Your task to perform on an android device: change timer sound Image 0: 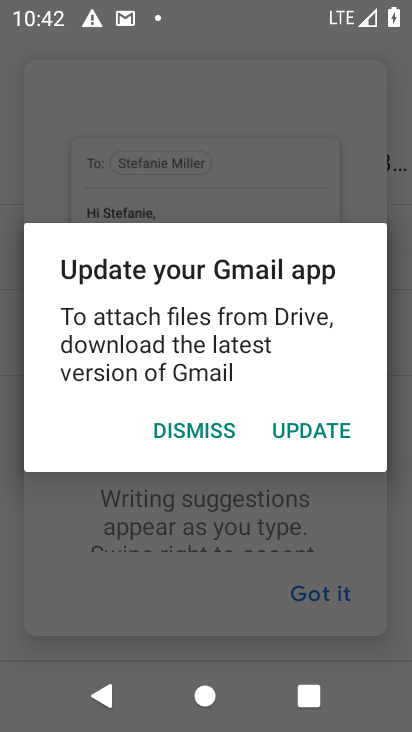
Step 0: press back button
Your task to perform on an android device: change timer sound Image 1: 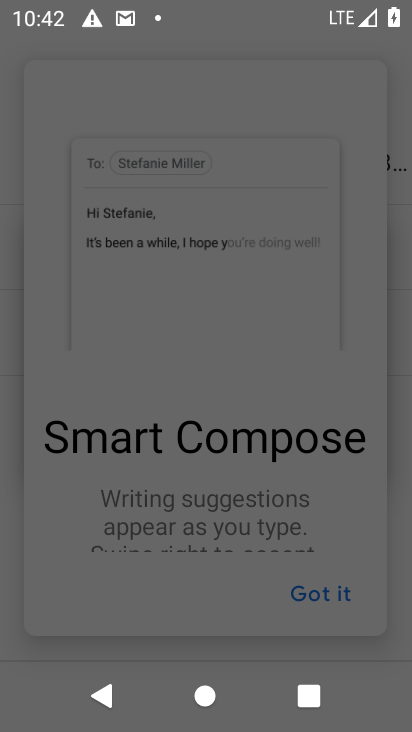
Step 1: press home button
Your task to perform on an android device: change timer sound Image 2: 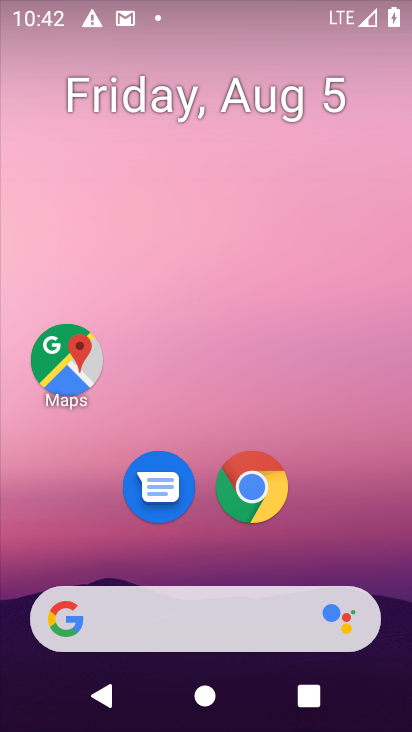
Step 2: drag from (196, 589) to (250, 58)
Your task to perform on an android device: change timer sound Image 3: 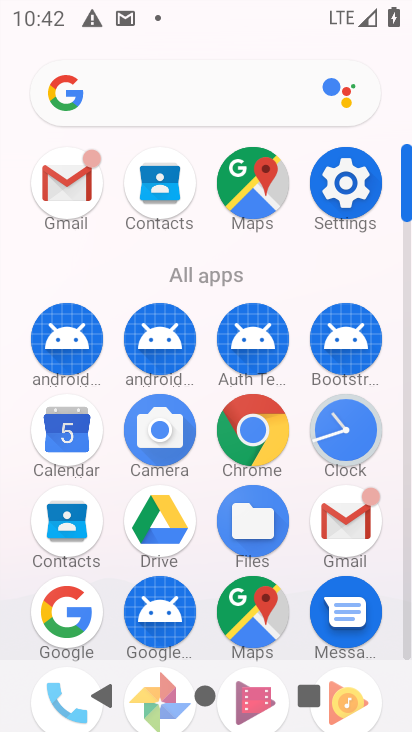
Step 3: click (351, 437)
Your task to perform on an android device: change timer sound Image 4: 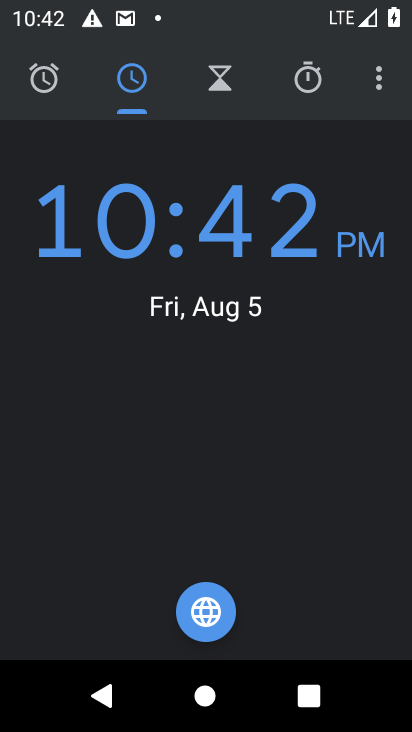
Step 4: click (382, 80)
Your task to perform on an android device: change timer sound Image 5: 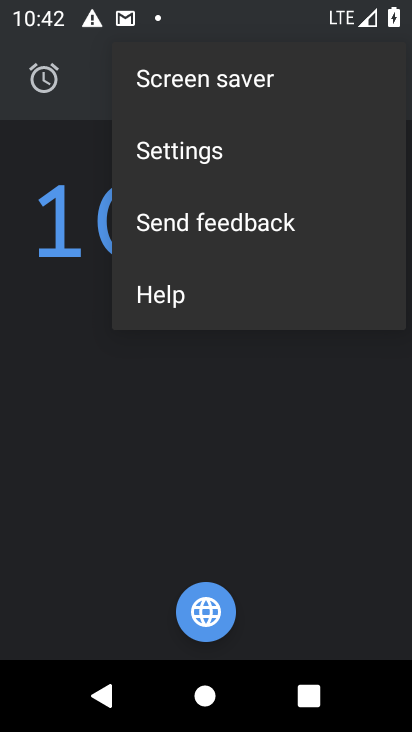
Step 5: click (240, 158)
Your task to perform on an android device: change timer sound Image 6: 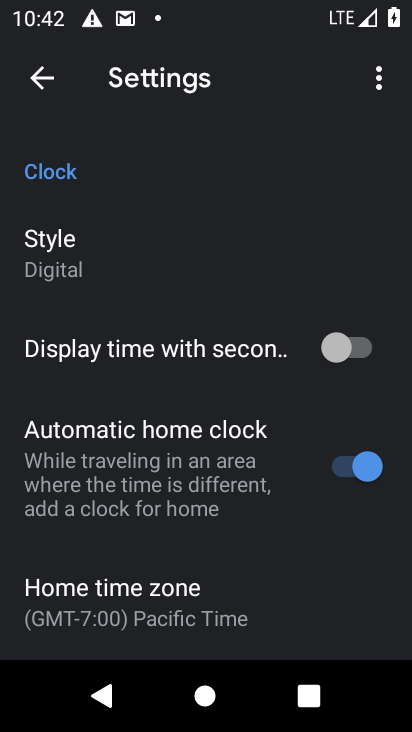
Step 6: drag from (135, 554) to (244, 92)
Your task to perform on an android device: change timer sound Image 7: 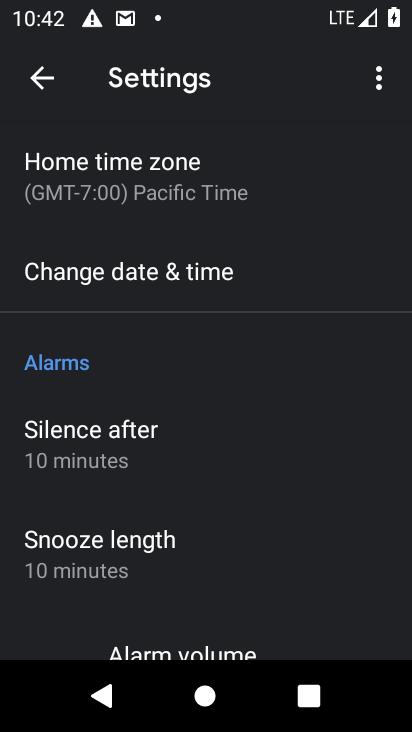
Step 7: drag from (179, 596) to (299, 111)
Your task to perform on an android device: change timer sound Image 8: 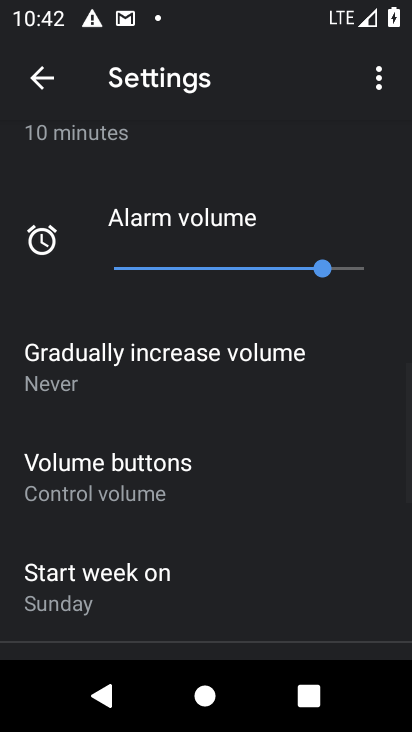
Step 8: drag from (186, 567) to (295, 70)
Your task to perform on an android device: change timer sound Image 9: 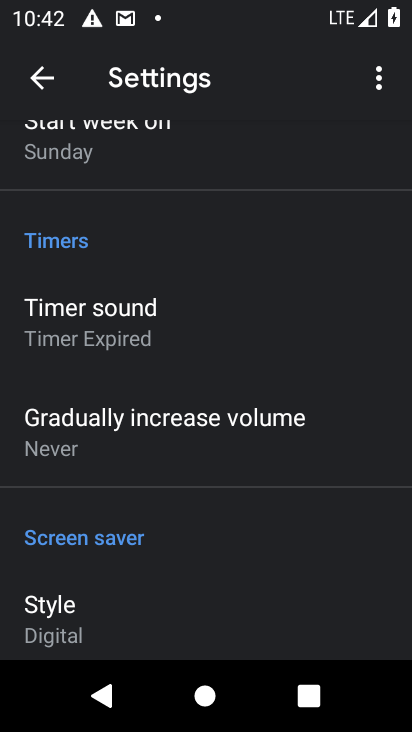
Step 9: click (59, 318)
Your task to perform on an android device: change timer sound Image 10: 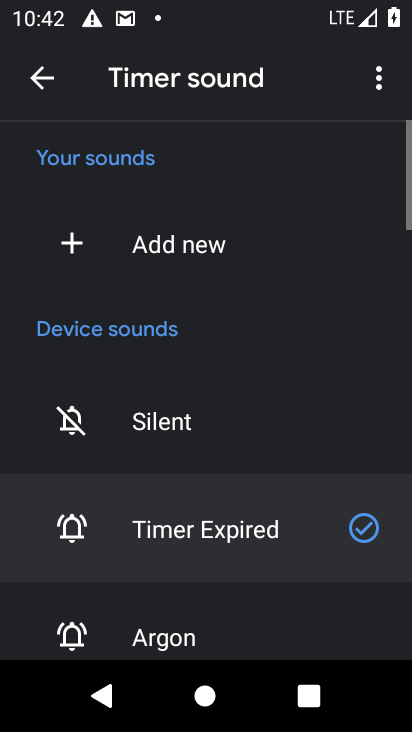
Step 10: click (159, 639)
Your task to perform on an android device: change timer sound Image 11: 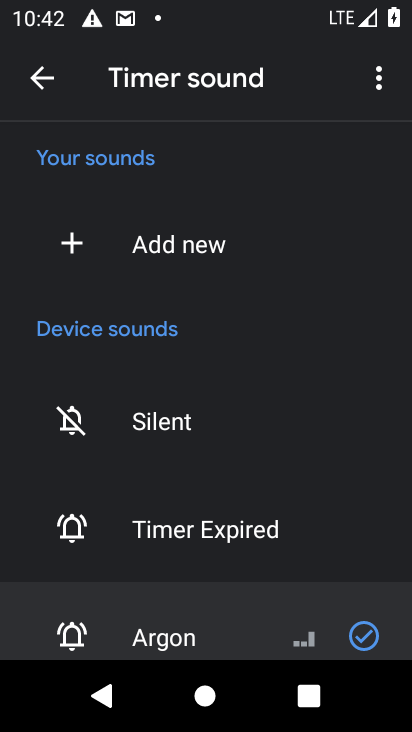
Step 11: task complete